Your task to perform on an android device: Open the calendar and show me this week's events Image 0: 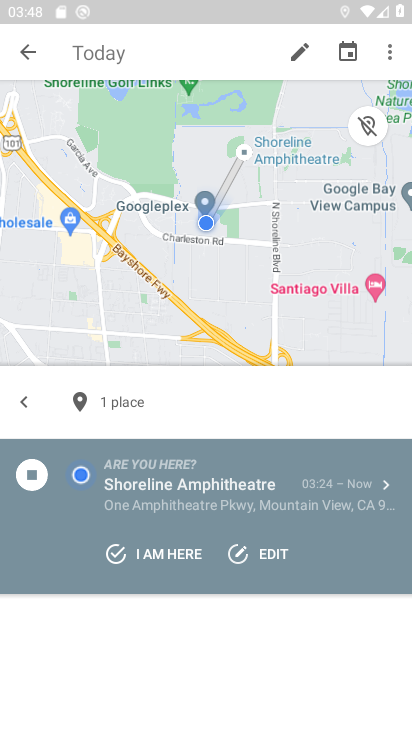
Step 0: press home button
Your task to perform on an android device: Open the calendar and show me this week's events Image 1: 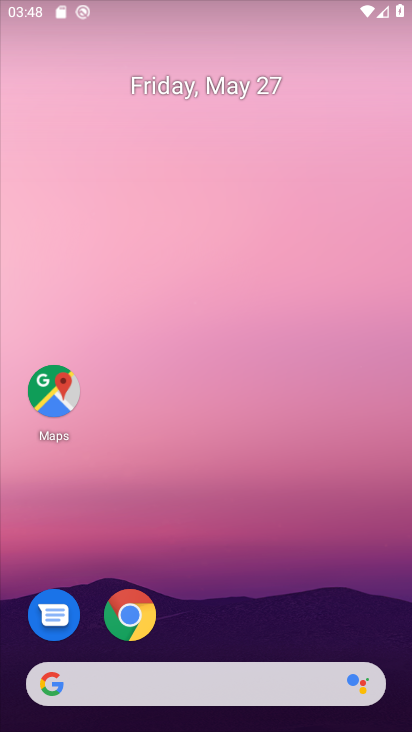
Step 1: drag from (116, 729) to (103, 90)
Your task to perform on an android device: Open the calendar and show me this week's events Image 2: 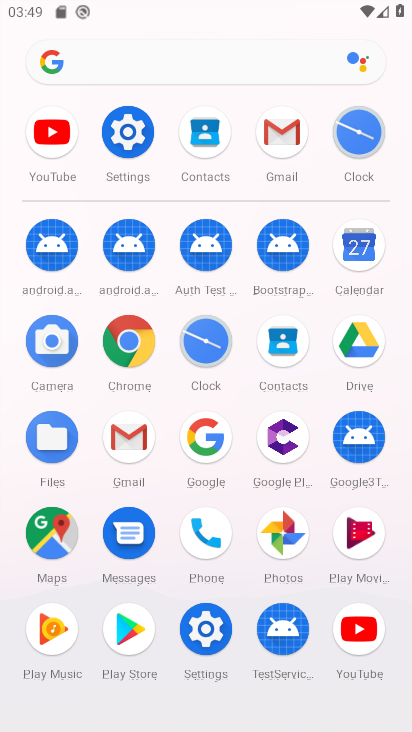
Step 2: click (363, 249)
Your task to perform on an android device: Open the calendar and show me this week's events Image 3: 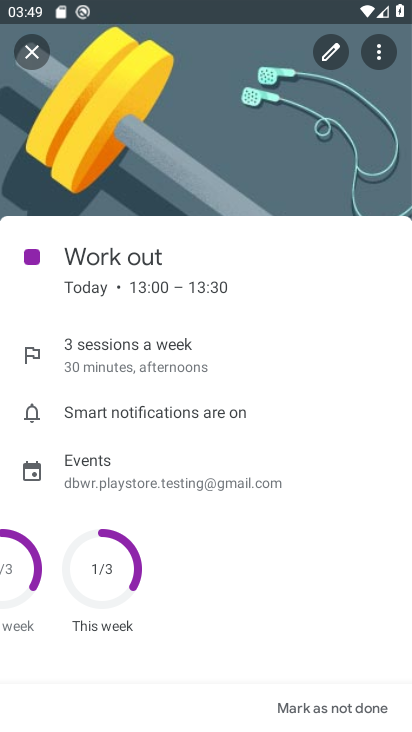
Step 3: click (30, 59)
Your task to perform on an android device: Open the calendar and show me this week's events Image 4: 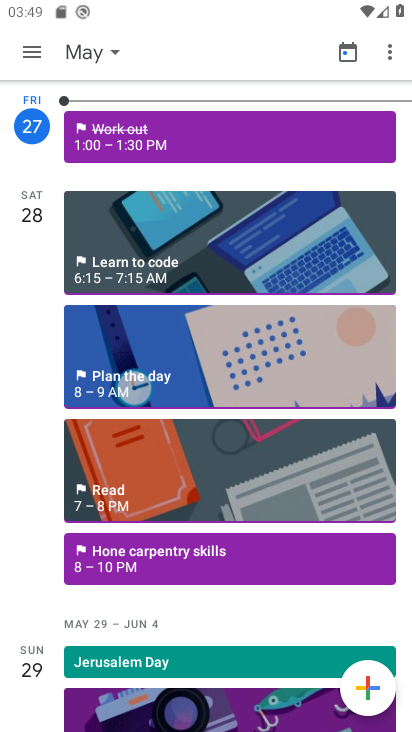
Step 4: click (28, 53)
Your task to perform on an android device: Open the calendar and show me this week's events Image 5: 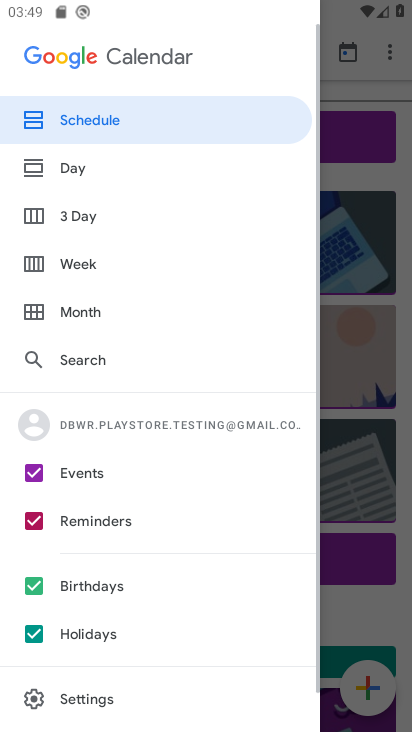
Step 5: click (84, 524)
Your task to perform on an android device: Open the calendar and show me this week's events Image 6: 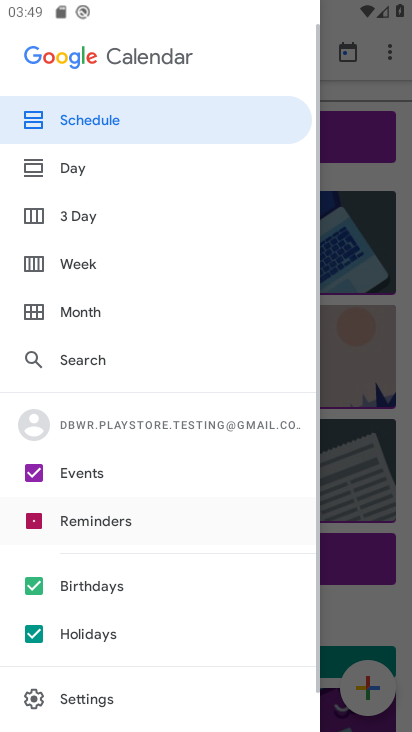
Step 6: click (60, 585)
Your task to perform on an android device: Open the calendar and show me this week's events Image 7: 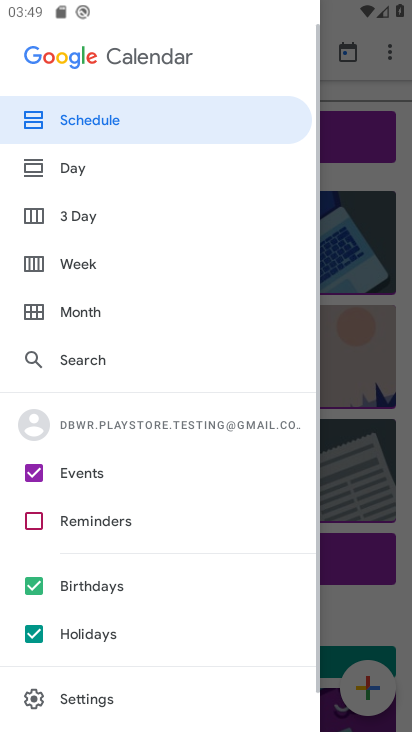
Step 7: click (68, 632)
Your task to perform on an android device: Open the calendar and show me this week's events Image 8: 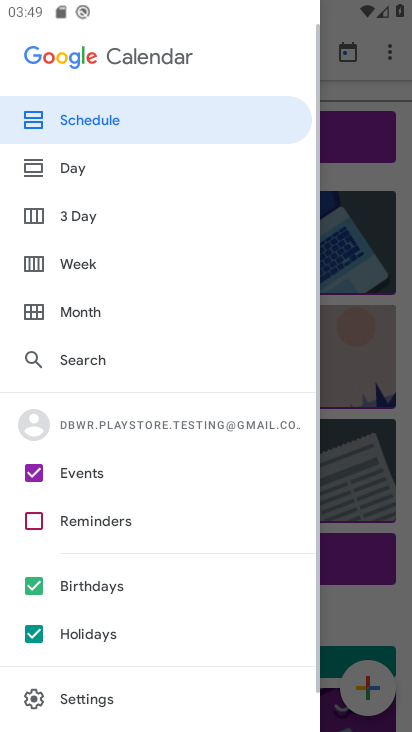
Step 8: click (41, 586)
Your task to perform on an android device: Open the calendar and show me this week's events Image 9: 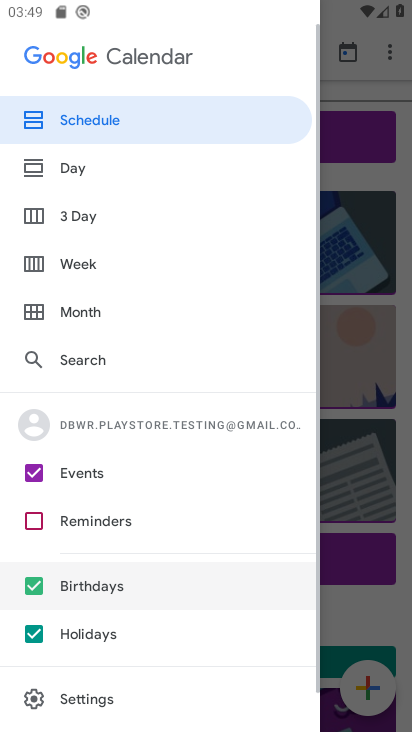
Step 9: click (36, 634)
Your task to perform on an android device: Open the calendar and show me this week's events Image 10: 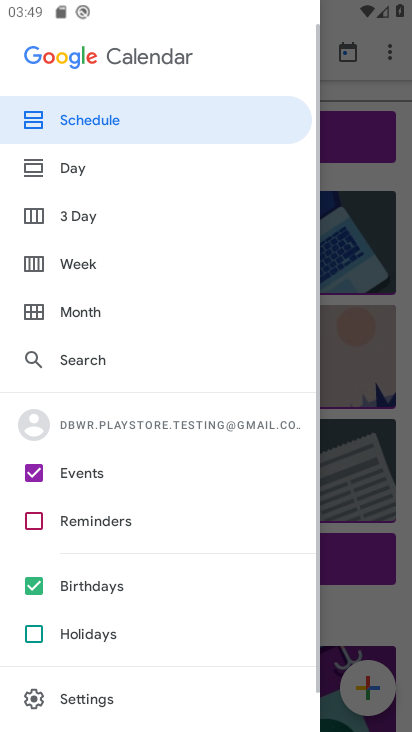
Step 10: click (34, 591)
Your task to perform on an android device: Open the calendar and show me this week's events Image 11: 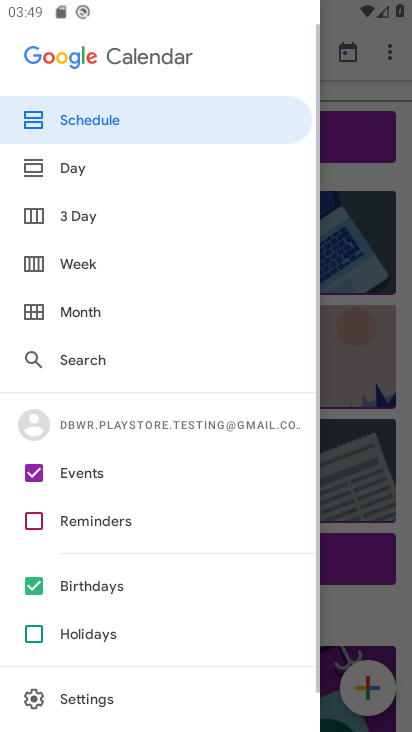
Step 11: click (30, 588)
Your task to perform on an android device: Open the calendar and show me this week's events Image 12: 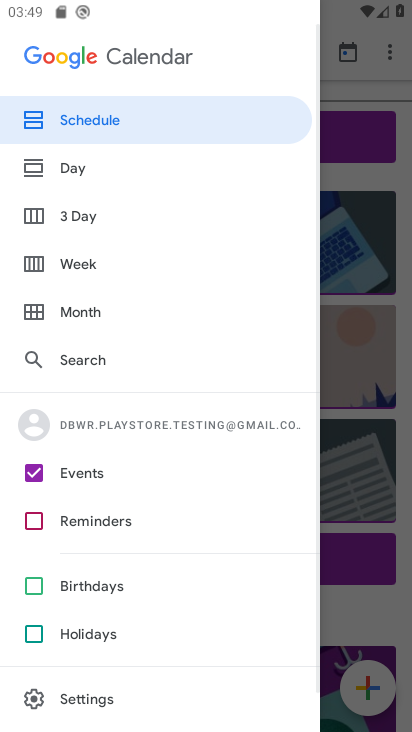
Step 12: press back button
Your task to perform on an android device: Open the calendar and show me this week's events Image 13: 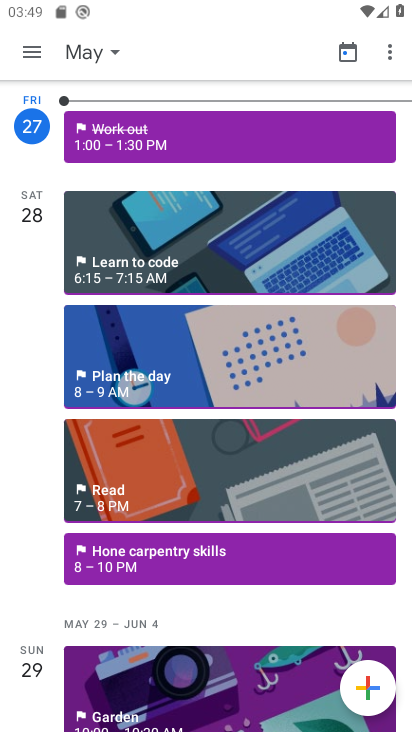
Step 13: click (111, 52)
Your task to perform on an android device: Open the calendar and show me this week's events Image 14: 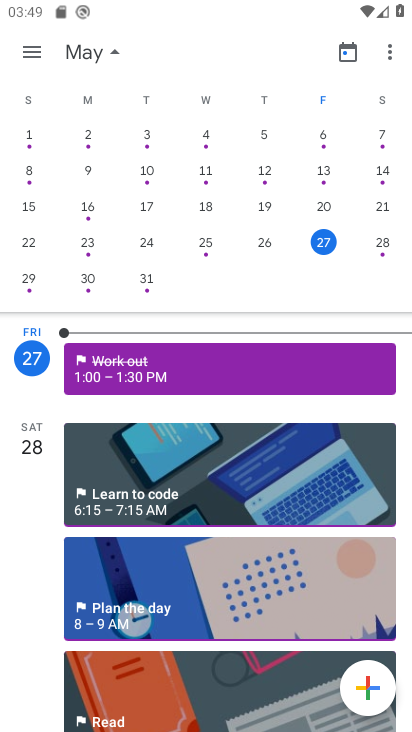
Step 14: click (32, 63)
Your task to perform on an android device: Open the calendar and show me this week's events Image 15: 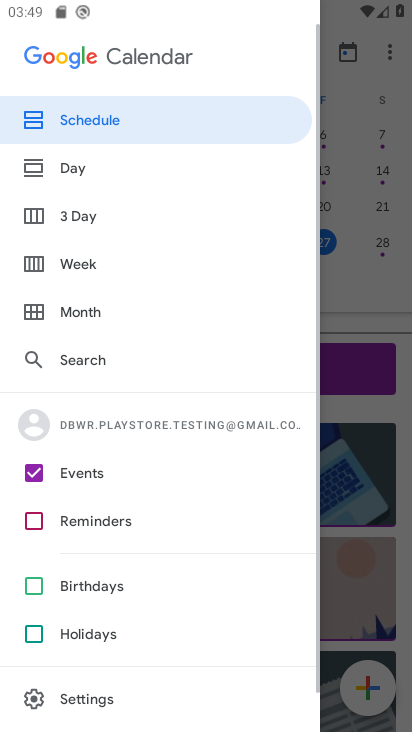
Step 15: click (95, 271)
Your task to perform on an android device: Open the calendar and show me this week's events Image 16: 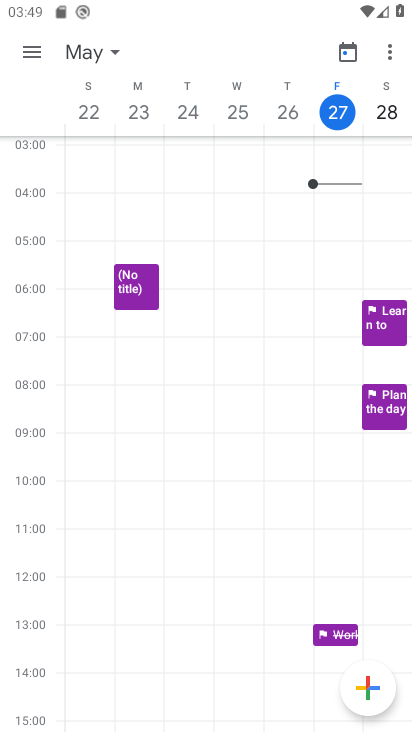
Step 16: task complete